Your task to perform on an android device: turn notification dots off Image 0: 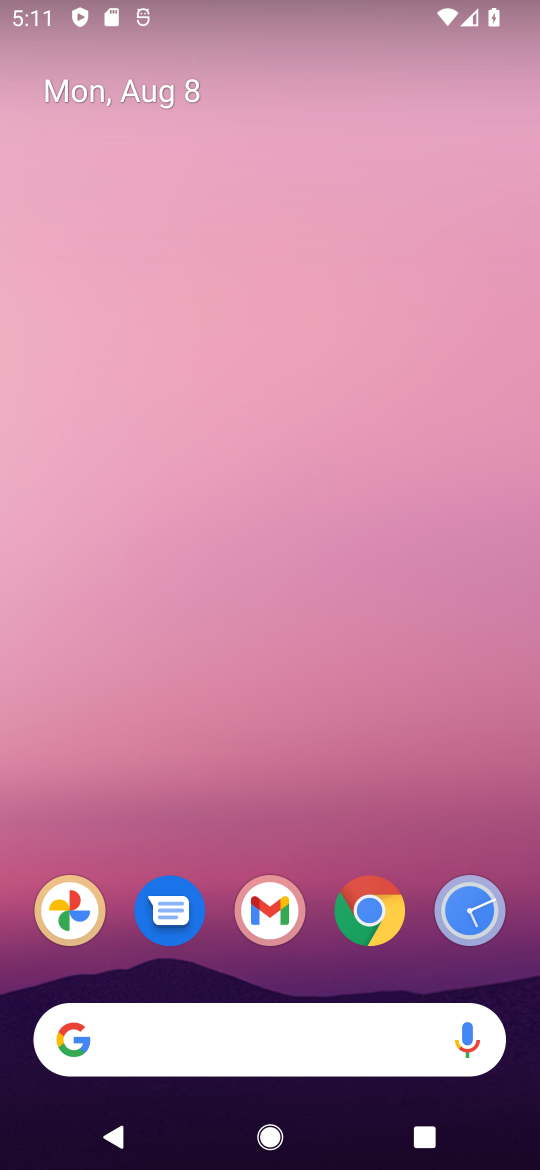
Step 0: drag from (211, 1032) to (249, 341)
Your task to perform on an android device: turn notification dots off Image 1: 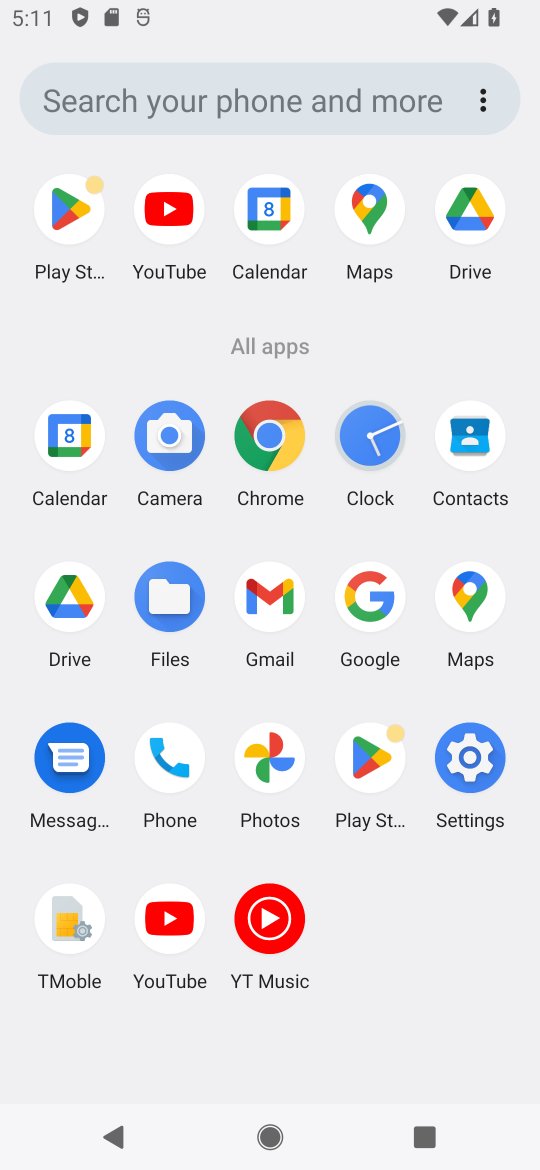
Step 1: click (469, 759)
Your task to perform on an android device: turn notification dots off Image 2: 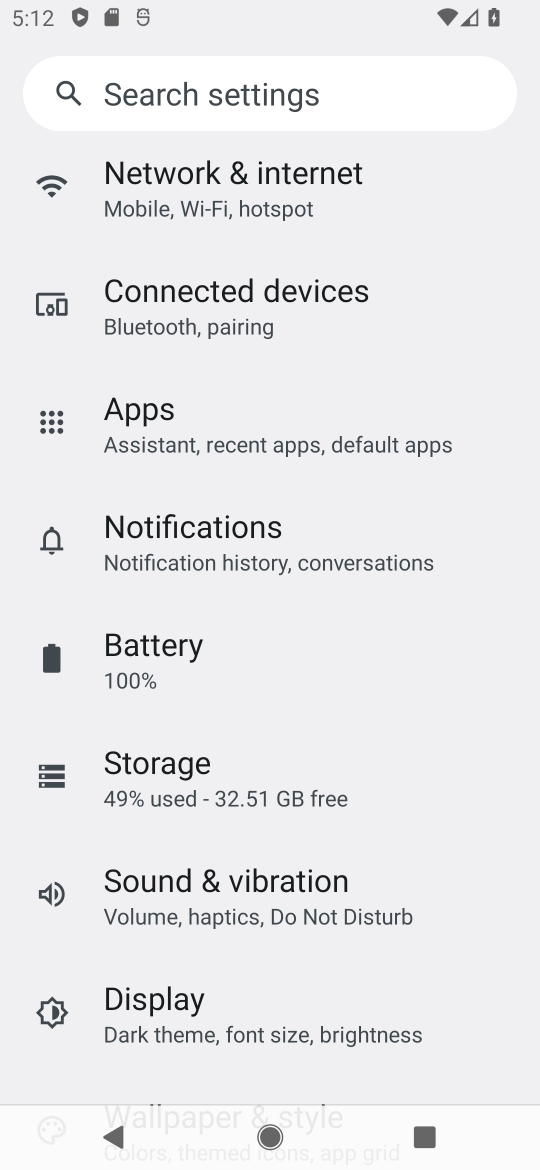
Step 2: click (228, 538)
Your task to perform on an android device: turn notification dots off Image 3: 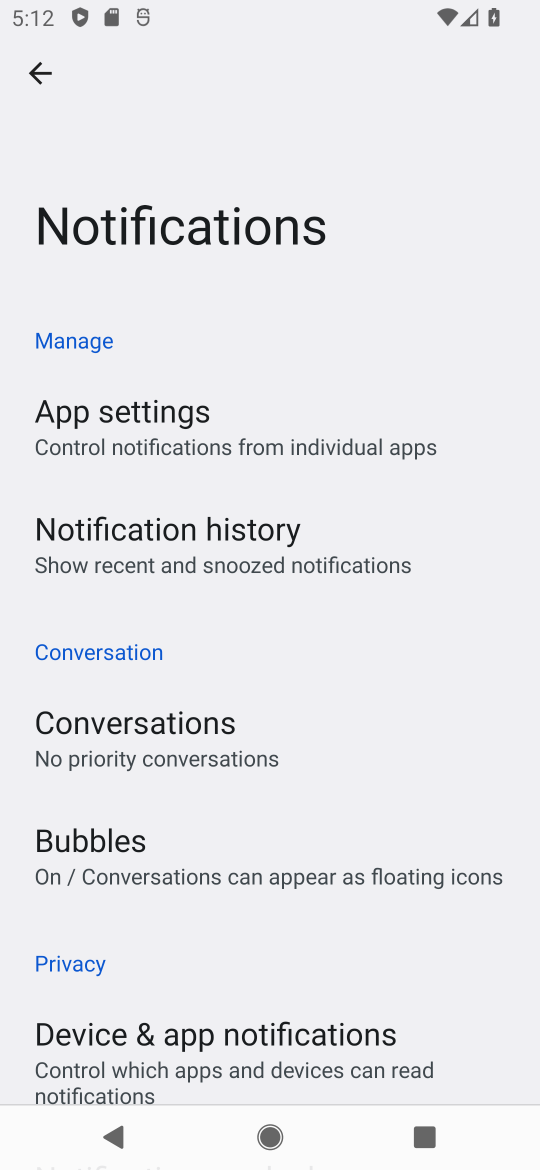
Step 3: drag from (176, 958) to (261, 744)
Your task to perform on an android device: turn notification dots off Image 4: 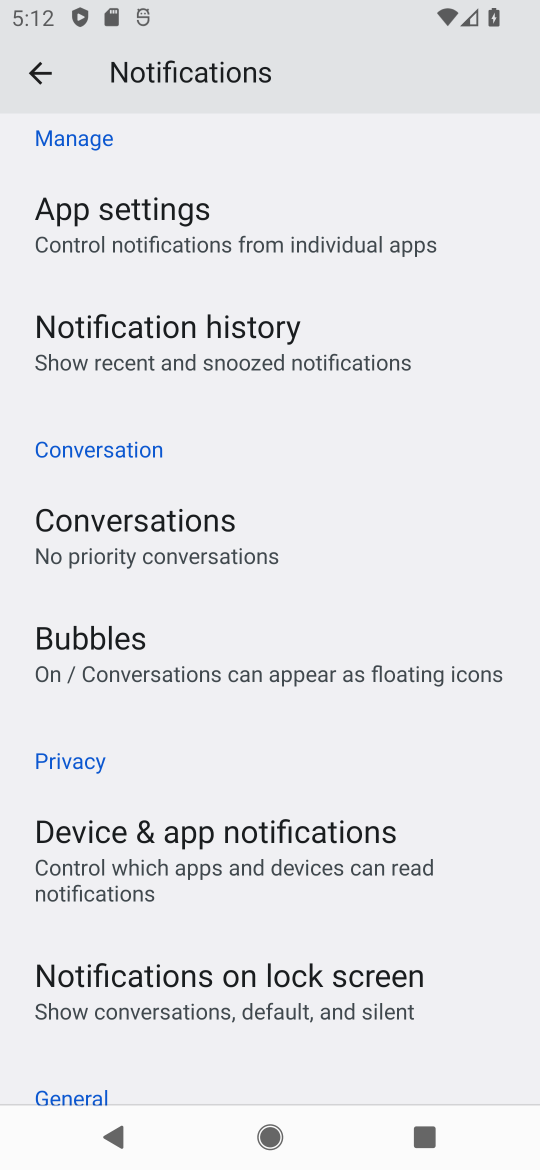
Step 4: drag from (191, 1052) to (244, 857)
Your task to perform on an android device: turn notification dots off Image 5: 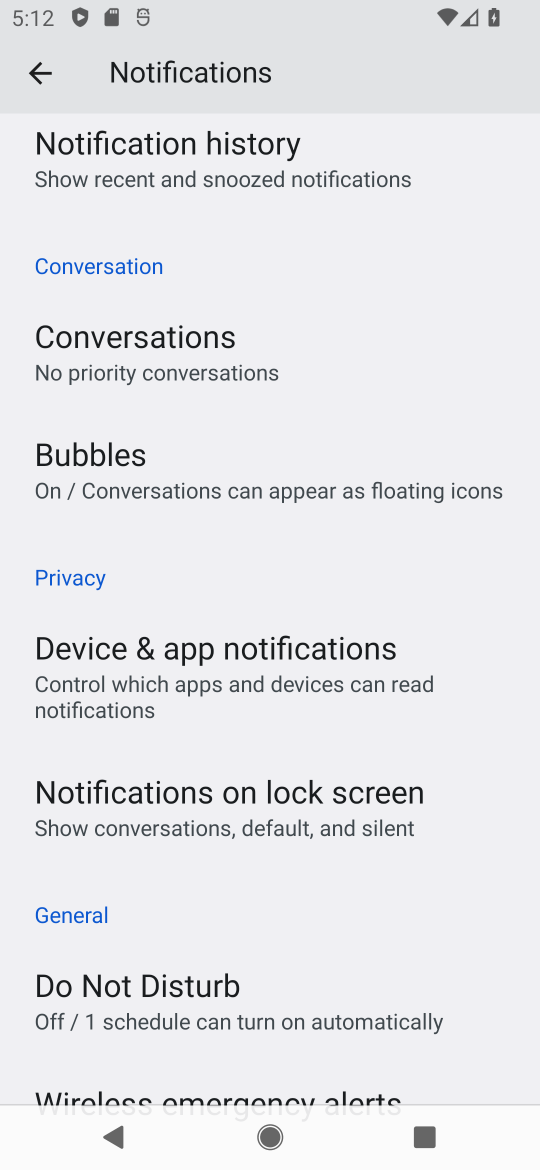
Step 5: drag from (253, 1051) to (321, 871)
Your task to perform on an android device: turn notification dots off Image 6: 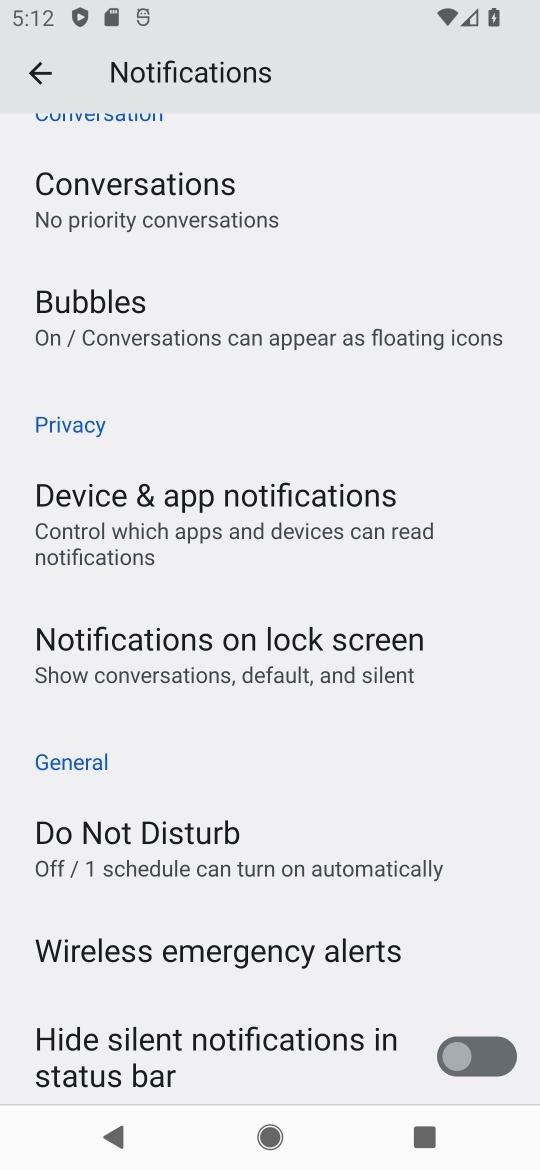
Step 6: drag from (217, 994) to (372, 781)
Your task to perform on an android device: turn notification dots off Image 7: 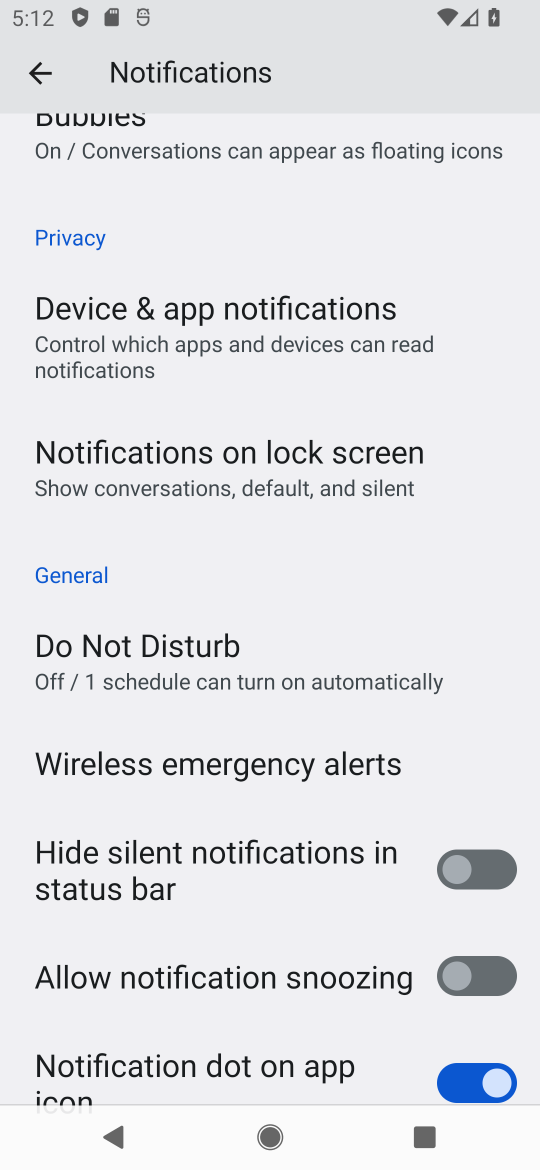
Step 7: drag from (250, 1018) to (275, 906)
Your task to perform on an android device: turn notification dots off Image 8: 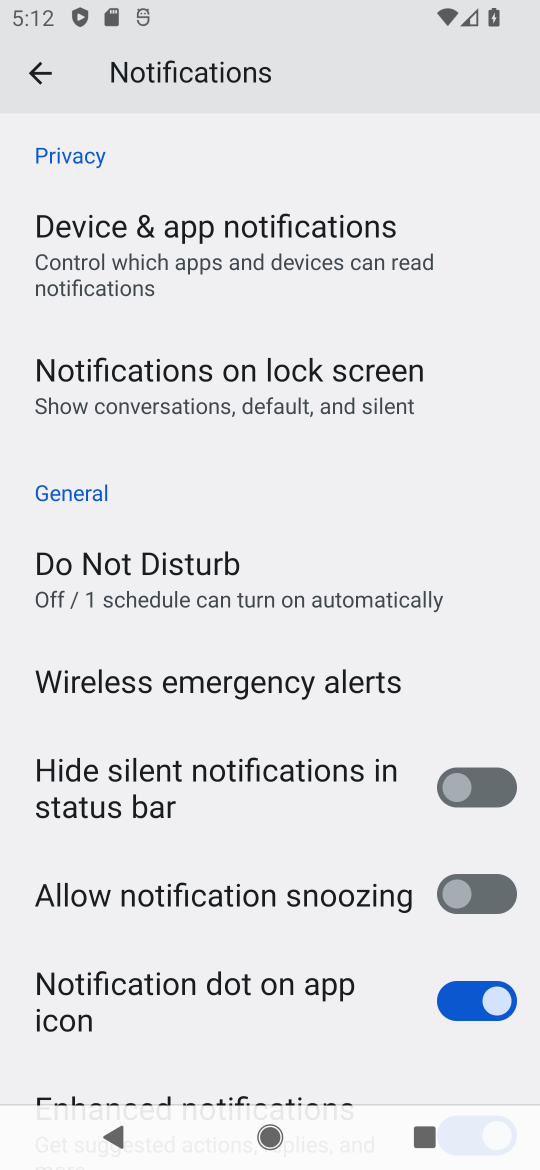
Step 8: click (458, 1006)
Your task to perform on an android device: turn notification dots off Image 9: 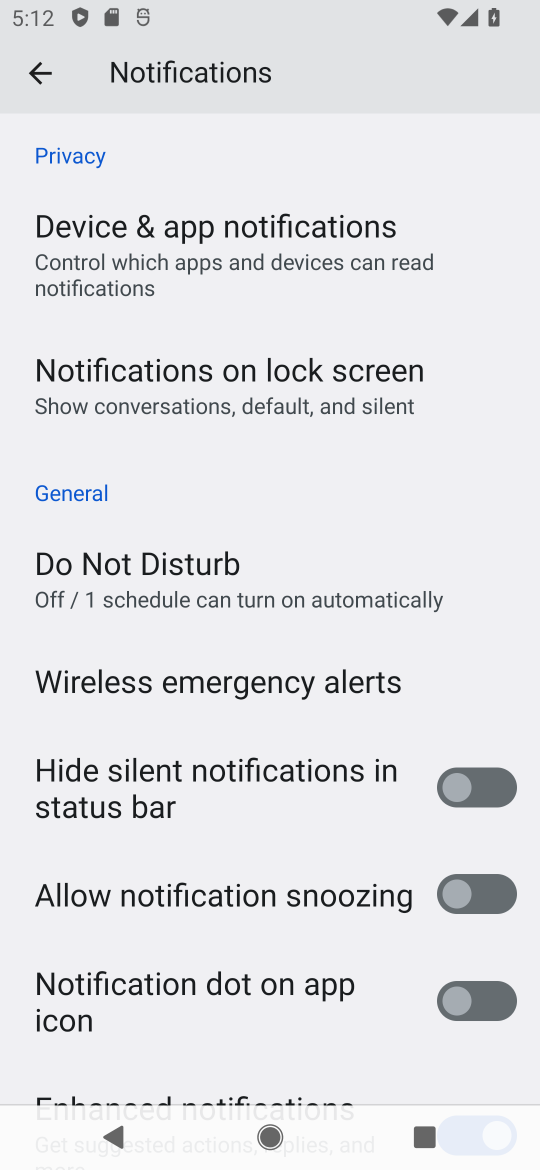
Step 9: task complete